Your task to perform on an android device: open a new tab in the chrome app Image 0: 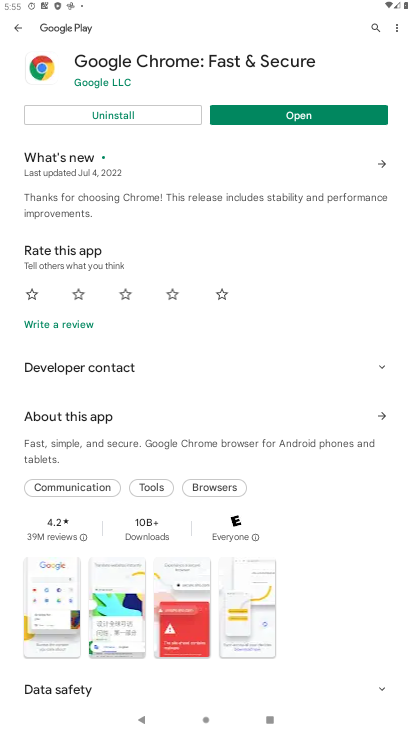
Step 0: press home button
Your task to perform on an android device: open a new tab in the chrome app Image 1: 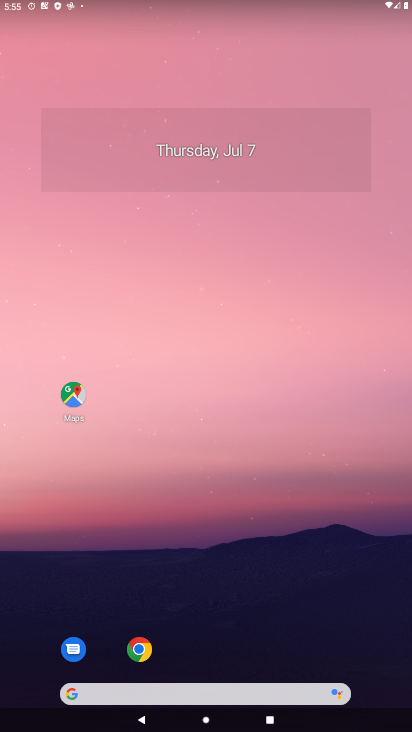
Step 1: drag from (379, 644) to (358, 192)
Your task to perform on an android device: open a new tab in the chrome app Image 2: 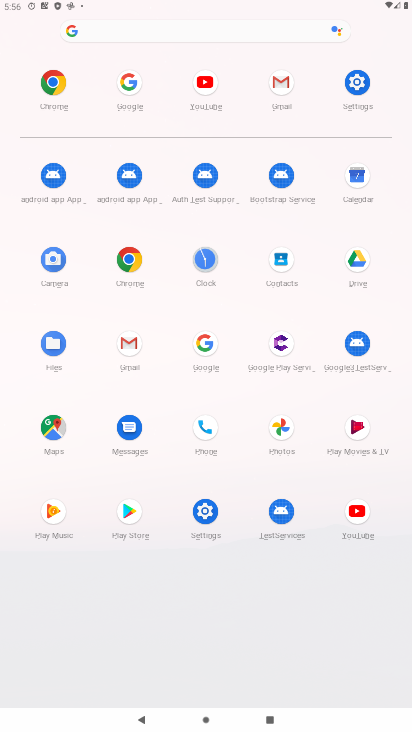
Step 2: click (129, 253)
Your task to perform on an android device: open a new tab in the chrome app Image 3: 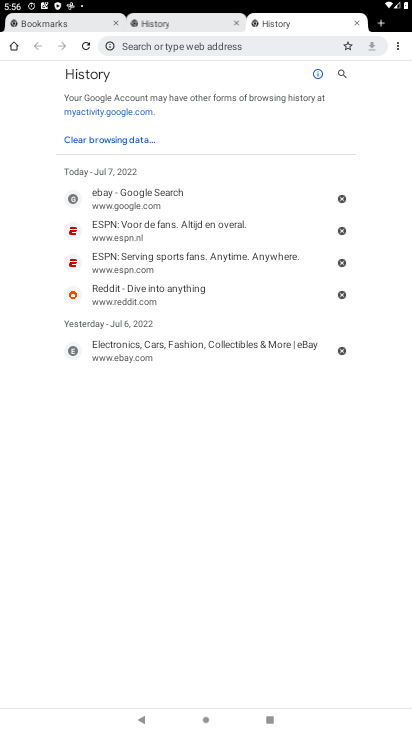
Step 3: click (376, 23)
Your task to perform on an android device: open a new tab in the chrome app Image 4: 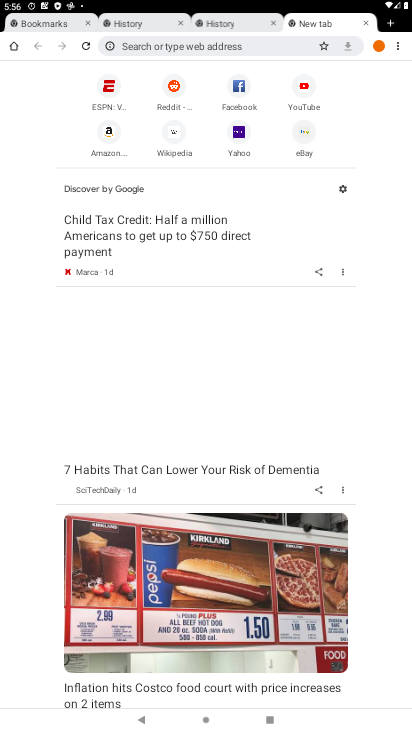
Step 4: task complete